Your task to perform on an android device: Show the shopping cart on newegg.com. Add "usb-c to usb-b" to the cart on newegg.com, then select checkout. Image 0: 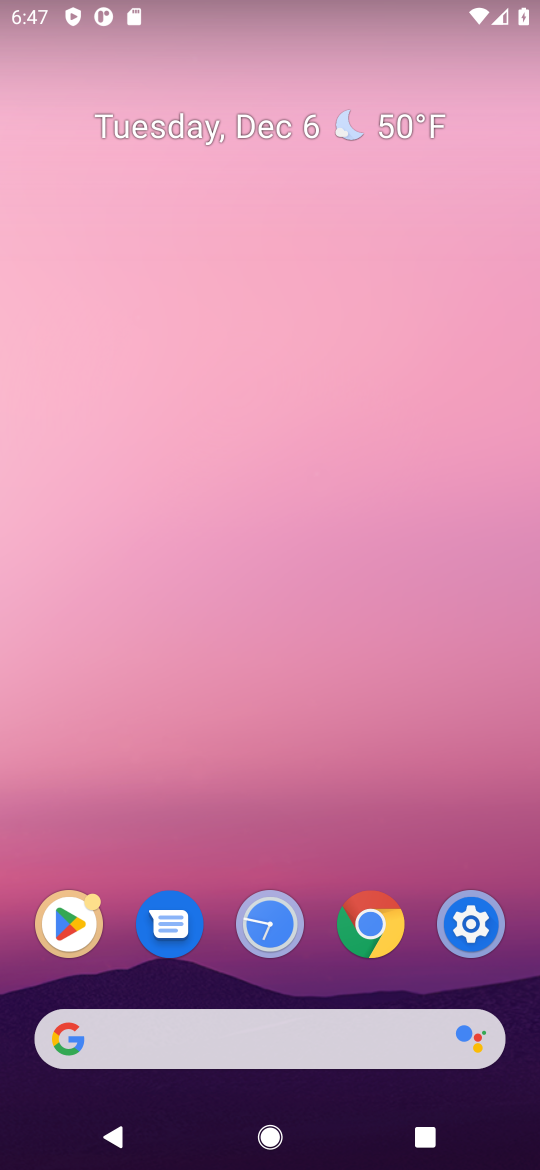
Step 0: click (280, 1023)
Your task to perform on an android device: Show the shopping cart on newegg.com. Add "usb-c to usb-b" to the cart on newegg.com, then select checkout. Image 1: 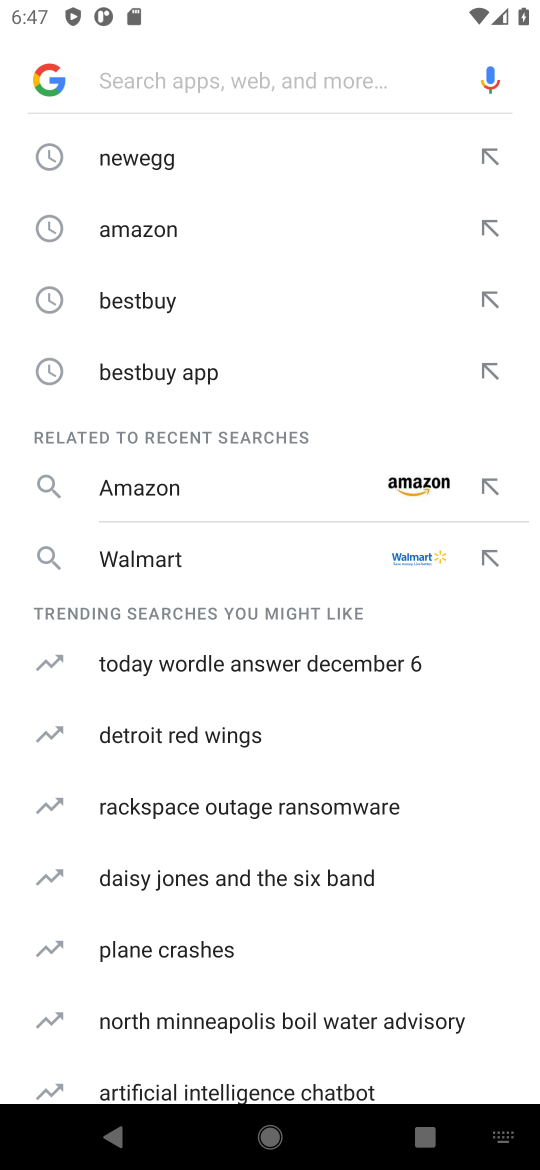
Step 1: type "newegg"
Your task to perform on an android device: Show the shopping cart on newegg.com. Add "usb-c to usb-b" to the cart on newegg.com, then select checkout. Image 2: 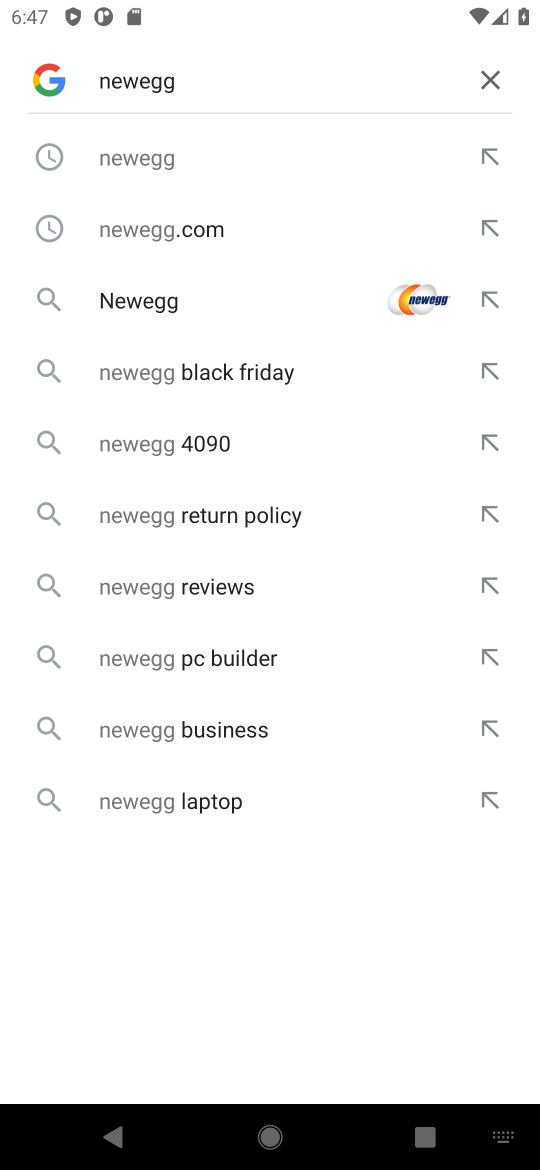
Step 2: click (171, 329)
Your task to perform on an android device: Show the shopping cart on newegg.com. Add "usb-c to usb-b" to the cart on newegg.com, then select checkout. Image 3: 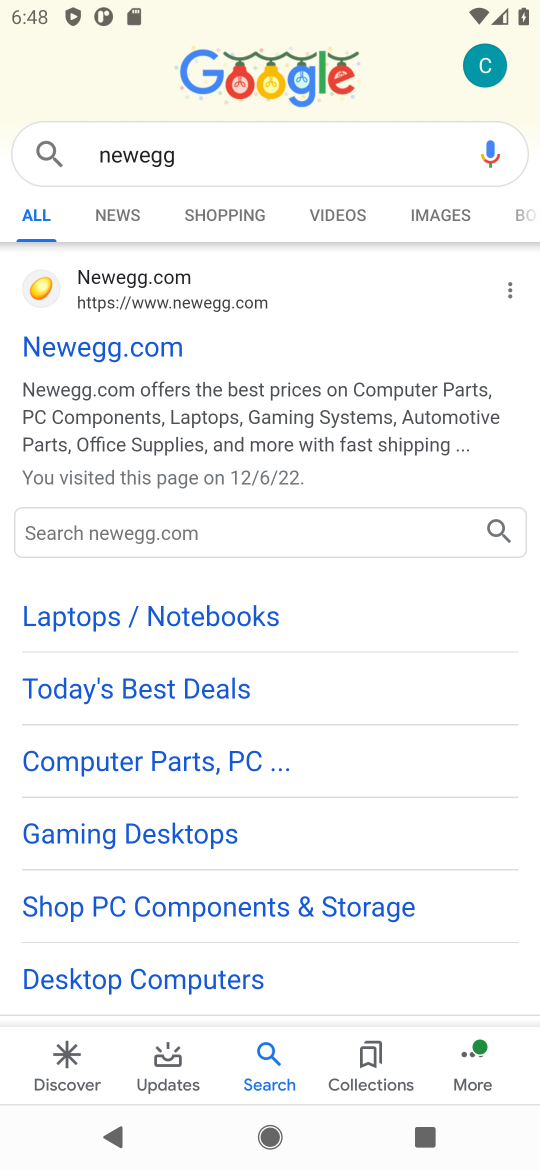
Step 3: click (147, 341)
Your task to perform on an android device: Show the shopping cart on newegg.com. Add "usb-c to usb-b" to the cart on newegg.com, then select checkout. Image 4: 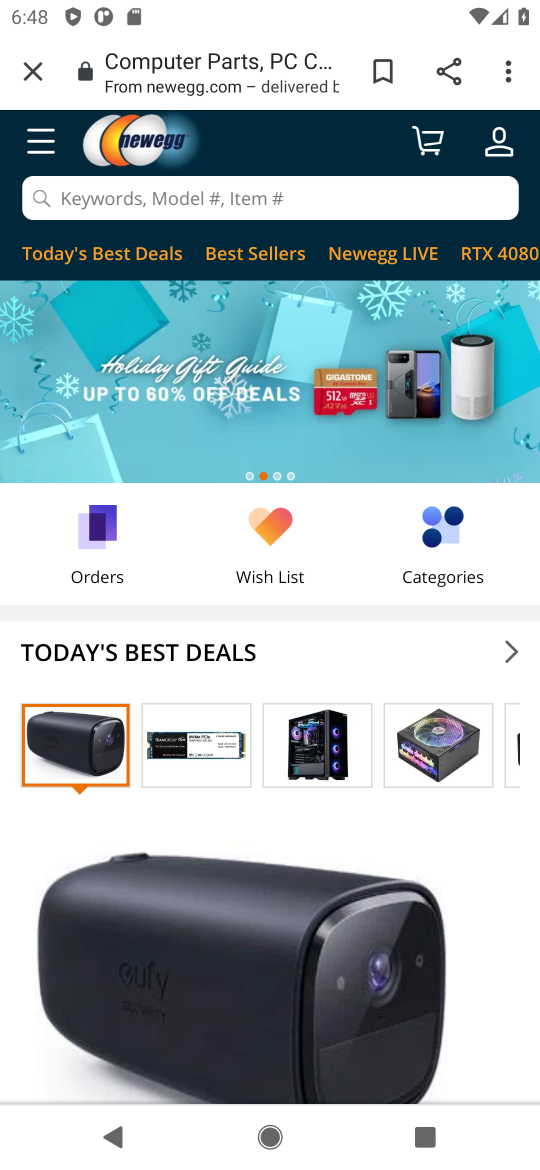
Step 4: click (192, 203)
Your task to perform on an android device: Show the shopping cart on newegg.com. Add "usb-c to usb-b" to the cart on newegg.com, then select checkout. Image 5: 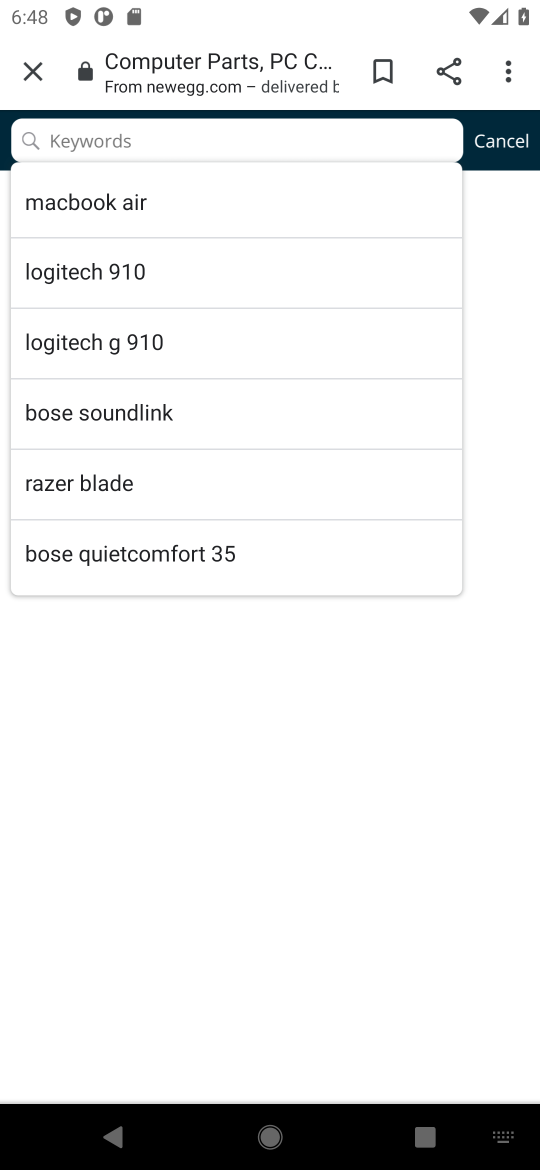
Step 5: type "usb-c to usb-b"
Your task to perform on an android device: Show the shopping cart on newegg.com. Add "usb-c to usb-b" to the cart on newegg.com, then select checkout. Image 6: 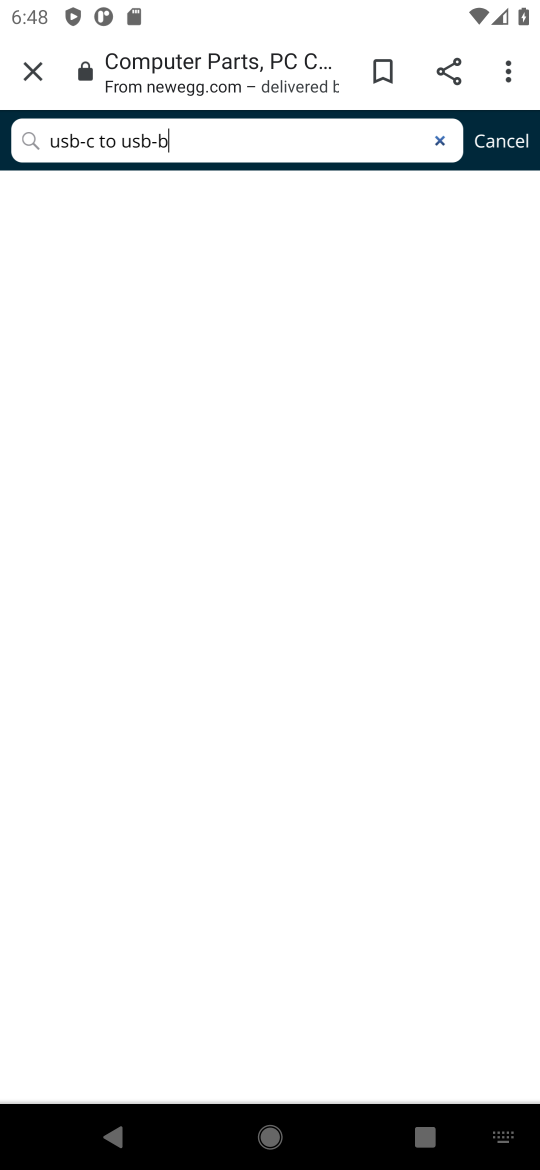
Step 6: task complete